Your task to perform on an android device: Clear the shopping cart on costco.com. Image 0: 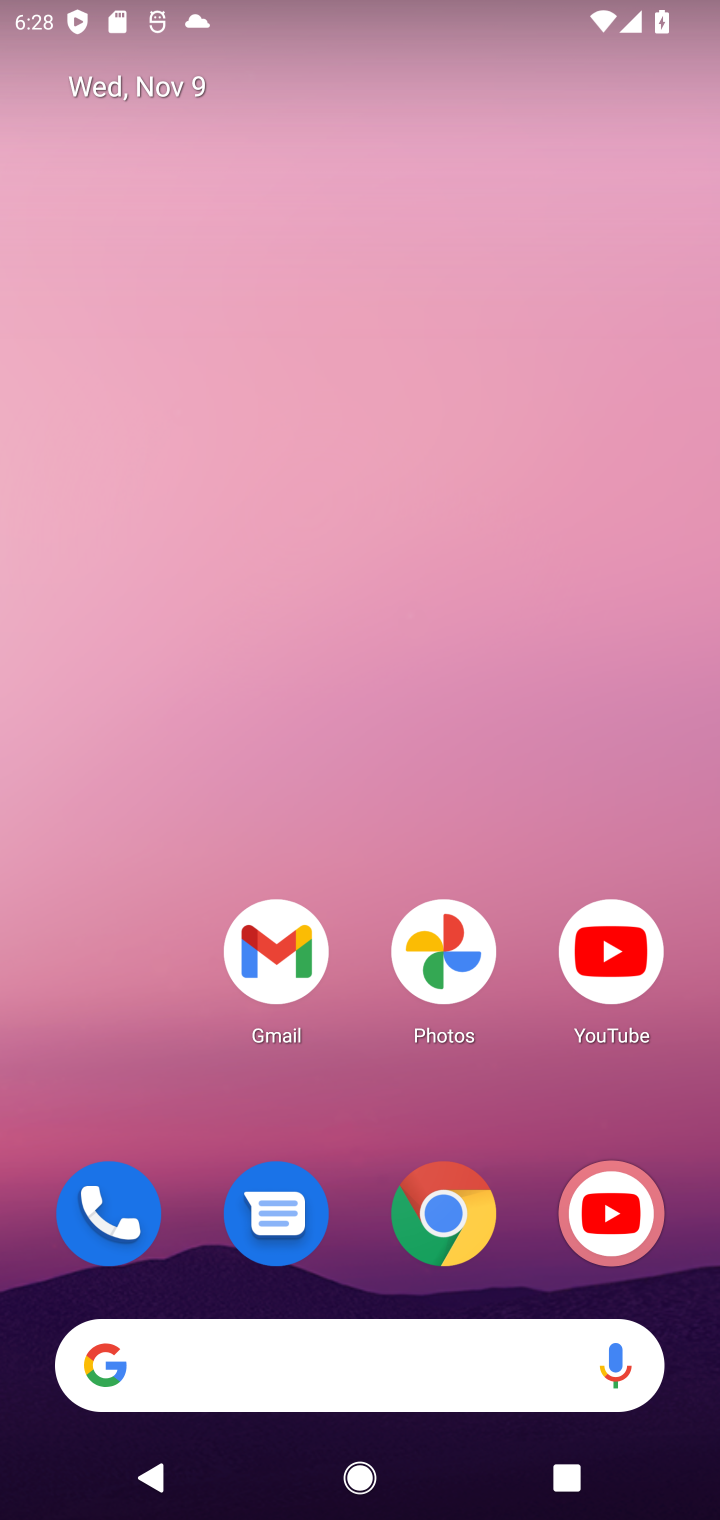
Step 0: press home button
Your task to perform on an android device: Clear the shopping cart on costco.com. Image 1: 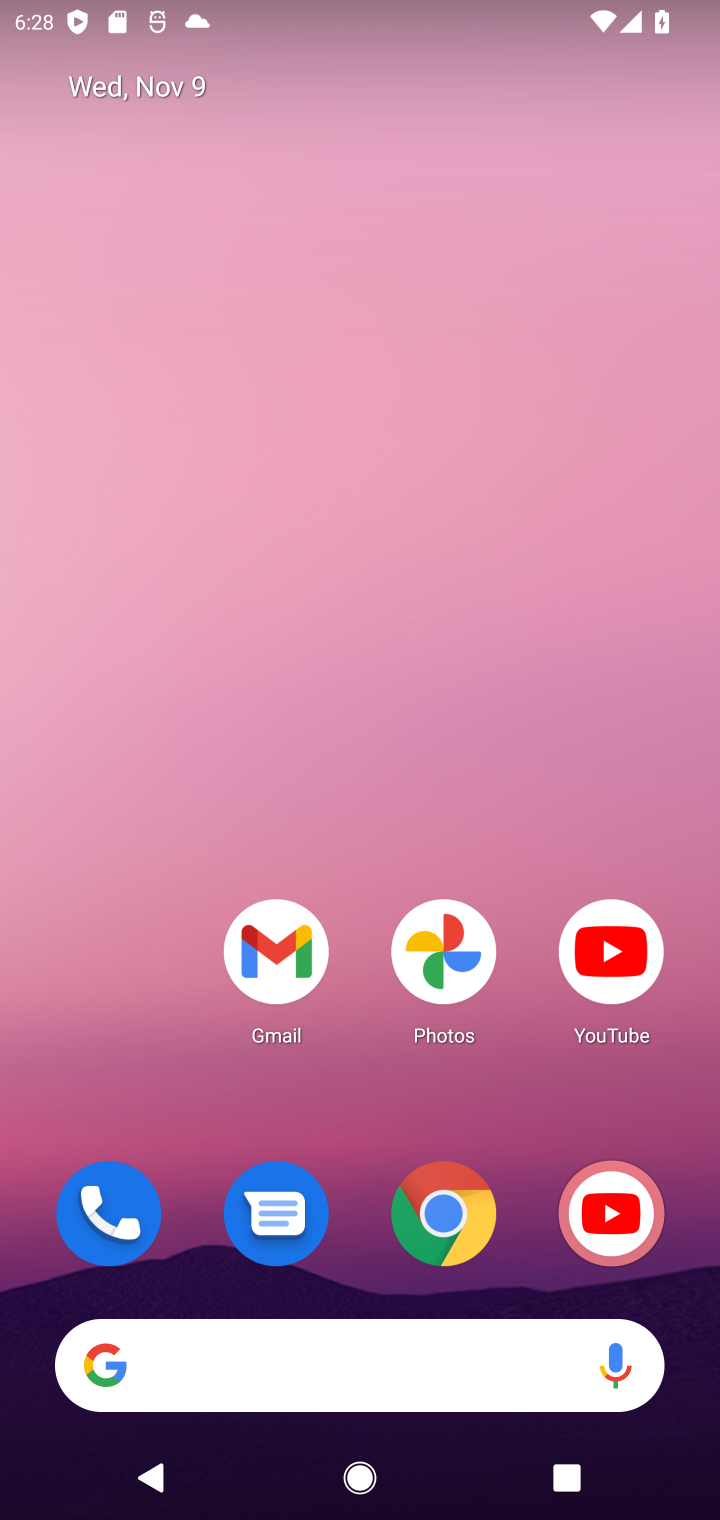
Step 1: press home button
Your task to perform on an android device: Clear the shopping cart on costco.com. Image 2: 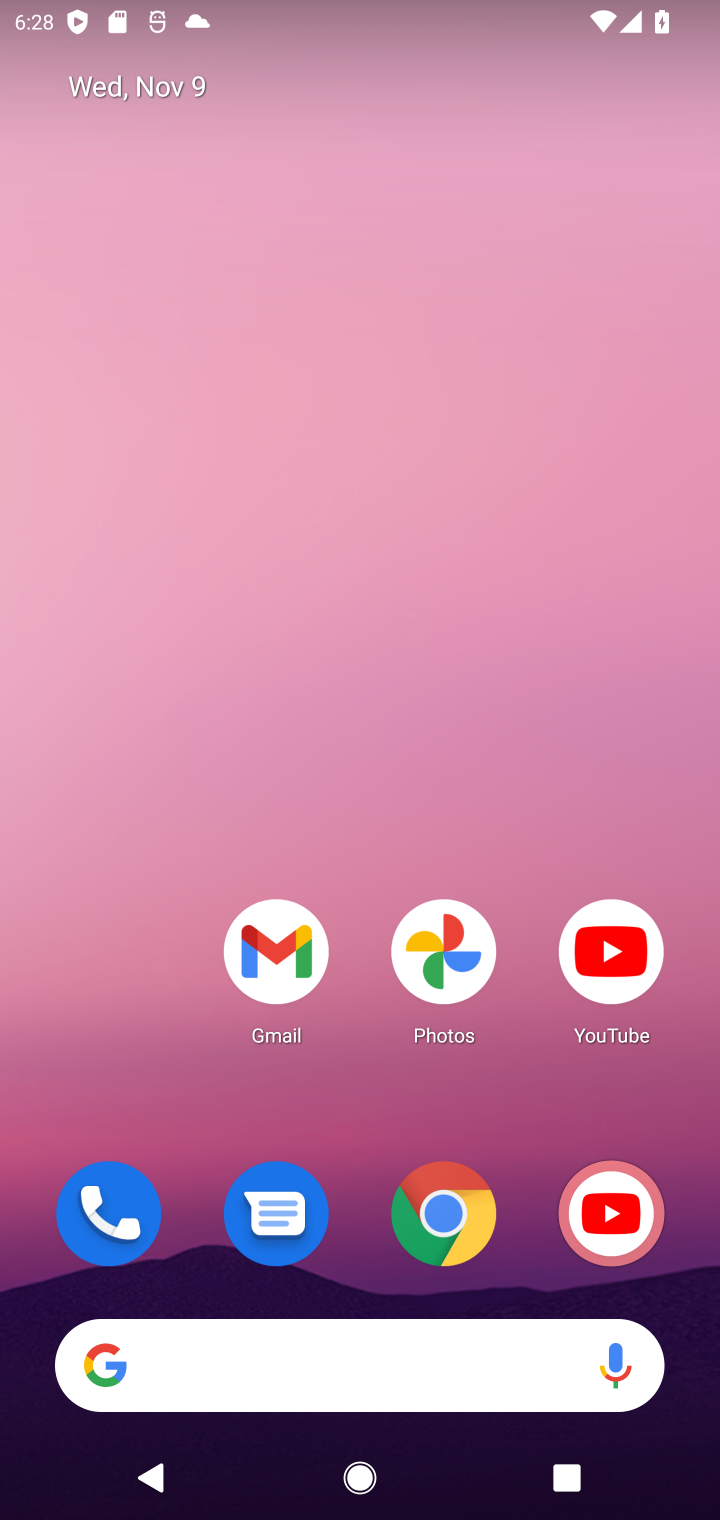
Step 2: click (421, 1241)
Your task to perform on an android device: Clear the shopping cart on costco.com. Image 3: 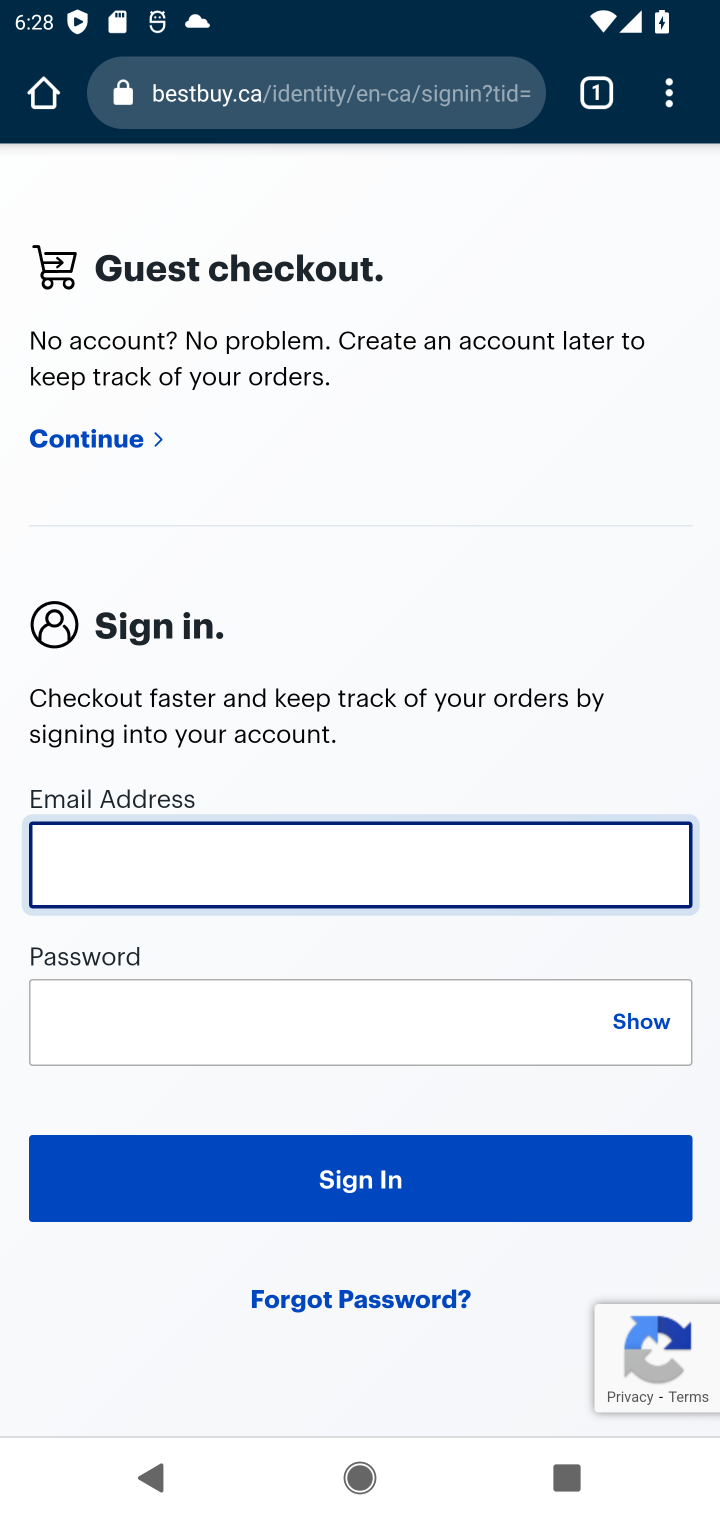
Step 3: click (257, 77)
Your task to perform on an android device: Clear the shopping cart on costco.com. Image 4: 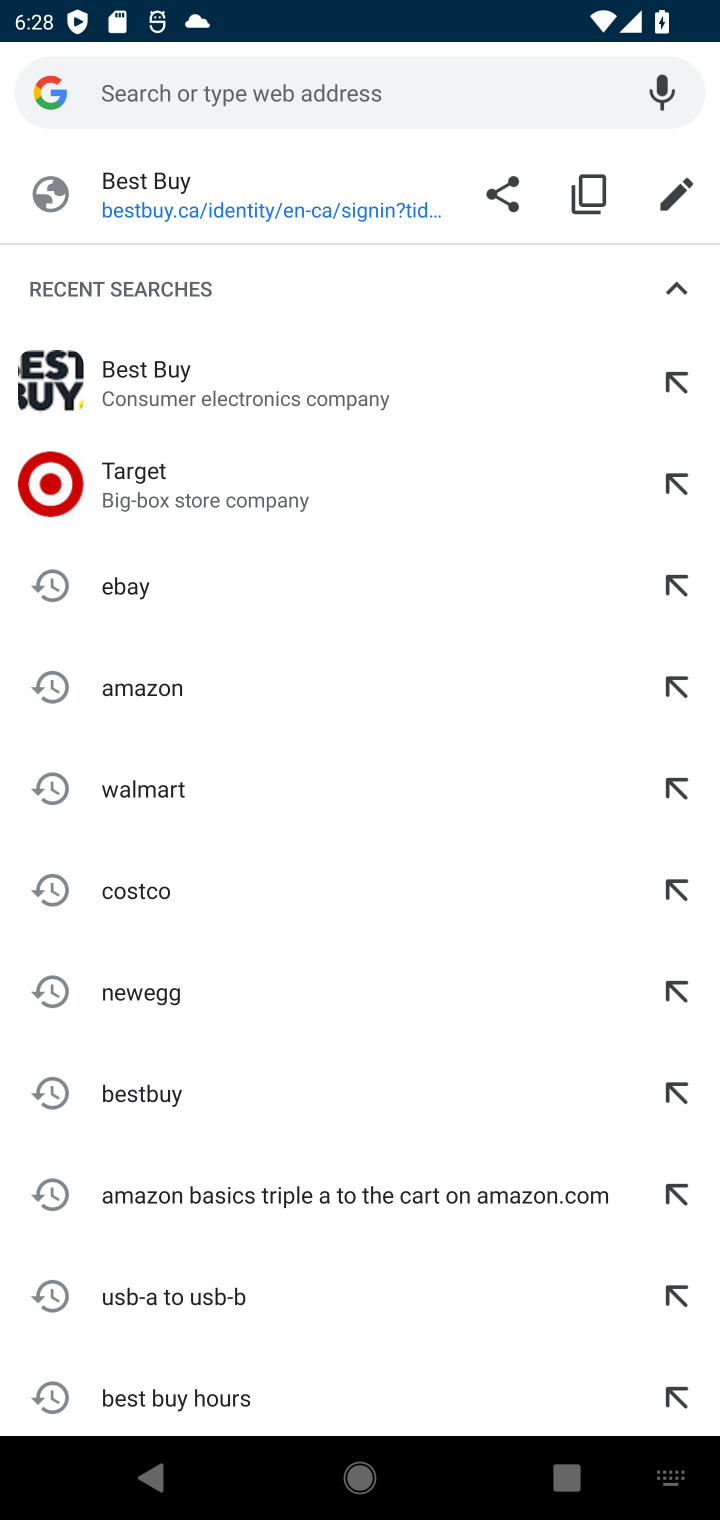
Step 4: type "costco"
Your task to perform on an android device: Clear the shopping cart on costco.com. Image 5: 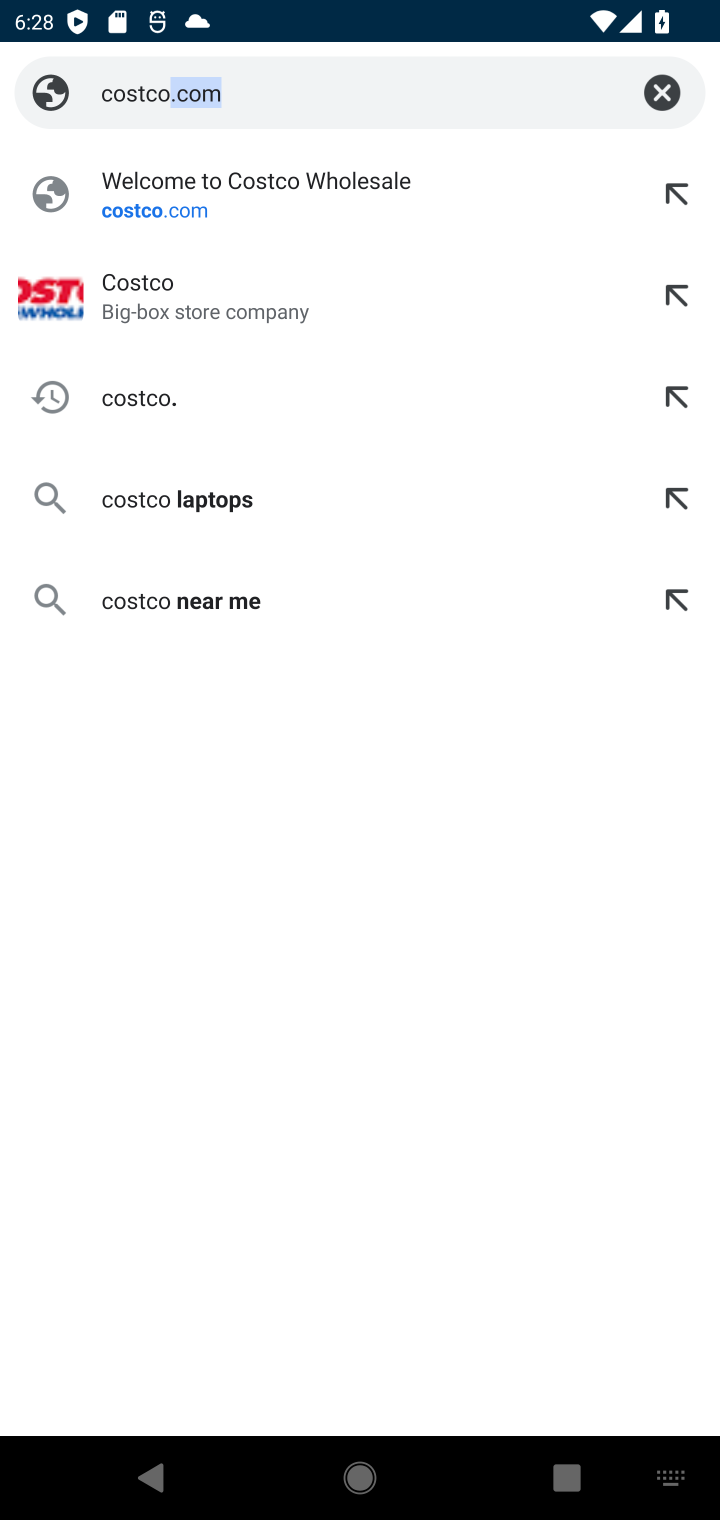
Step 5: click (125, 289)
Your task to perform on an android device: Clear the shopping cart on costco.com. Image 6: 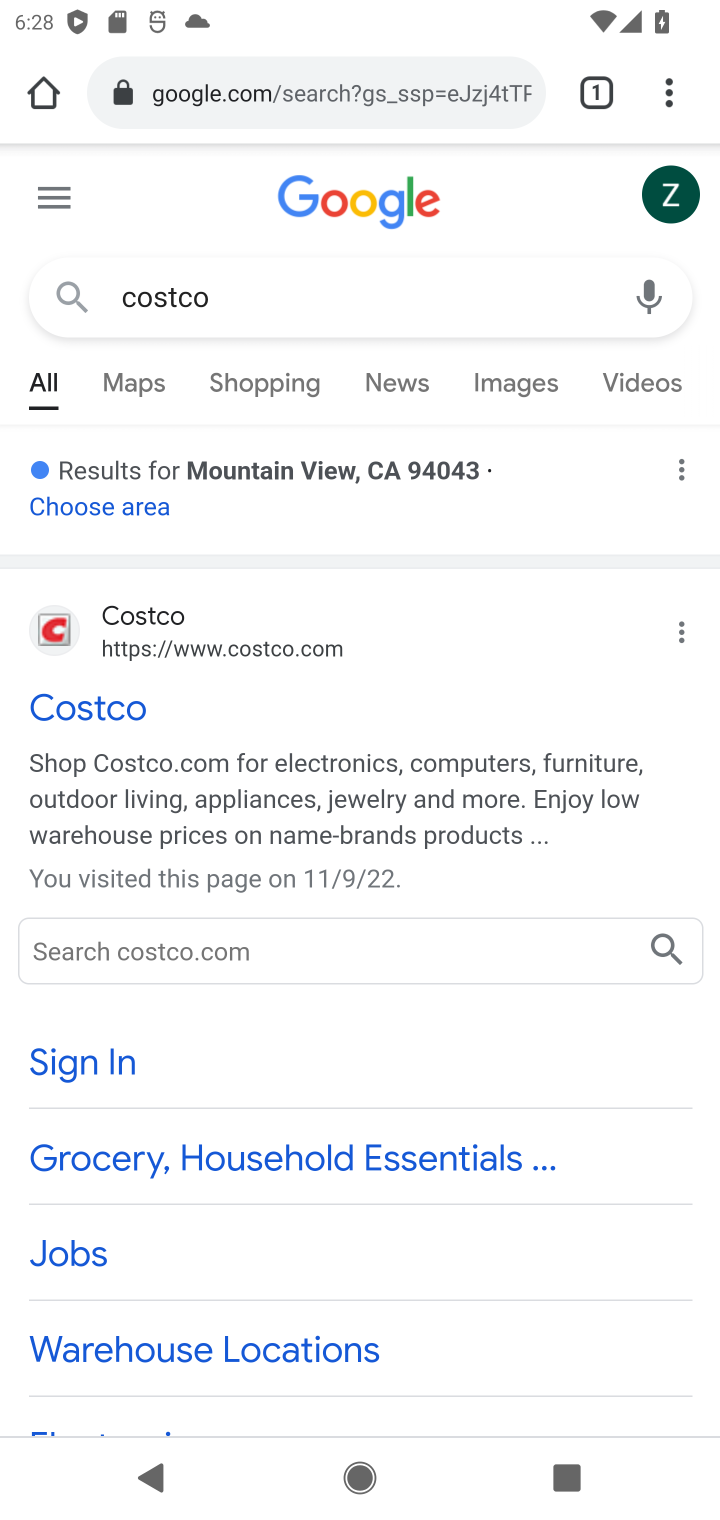
Step 6: click (140, 715)
Your task to perform on an android device: Clear the shopping cart on costco.com. Image 7: 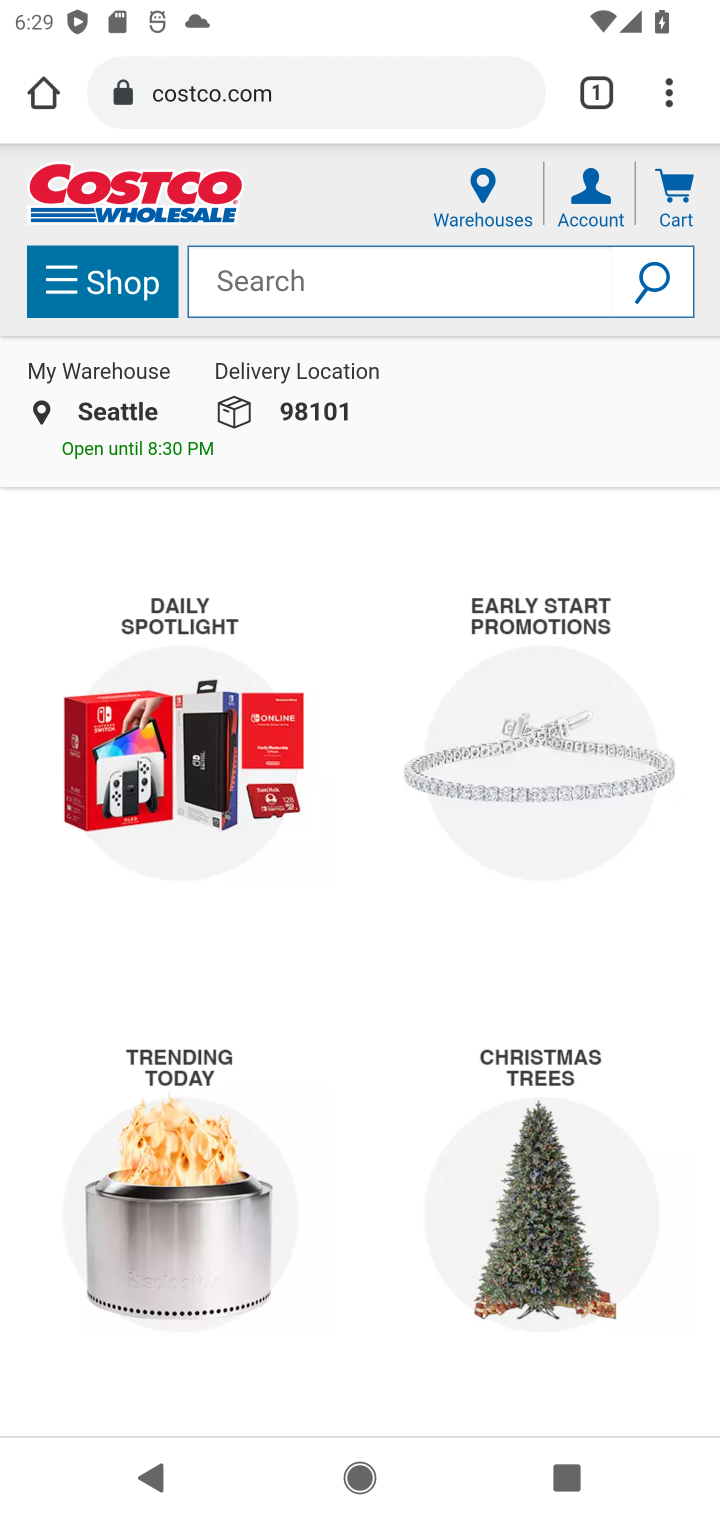
Step 7: click (273, 279)
Your task to perform on an android device: Clear the shopping cart on costco.com. Image 8: 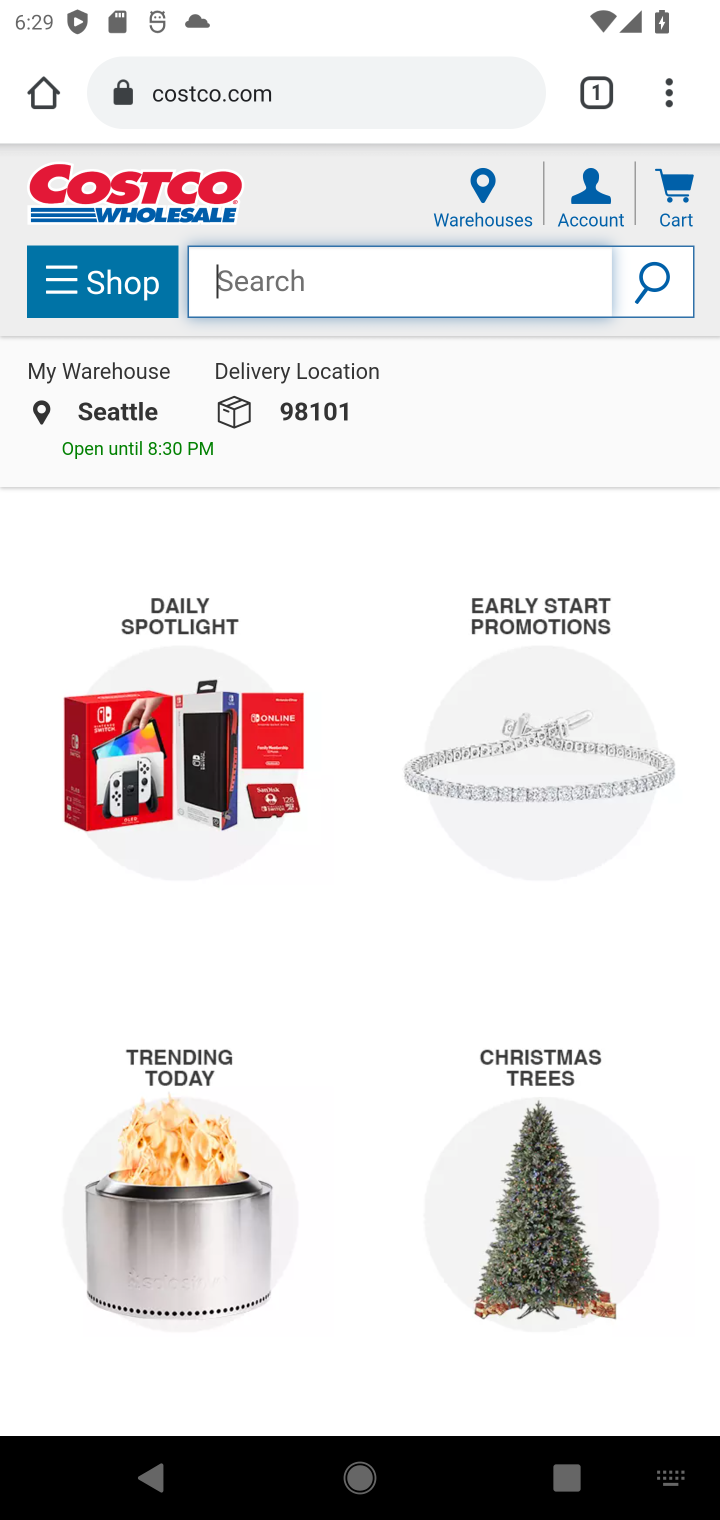
Step 8: click (654, 192)
Your task to perform on an android device: Clear the shopping cart on costco.com. Image 9: 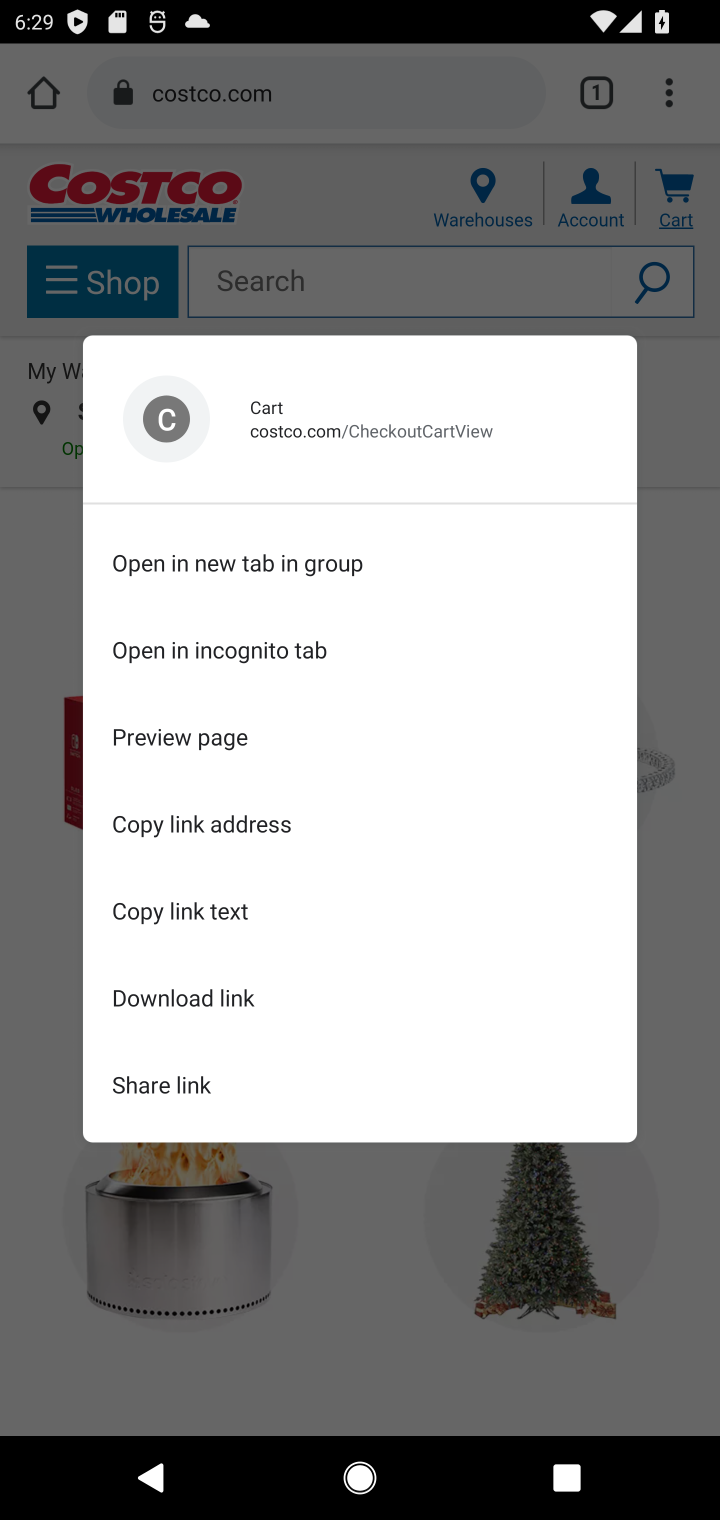
Step 9: click (694, 402)
Your task to perform on an android device: Clear the shopping cart on costco.com. Image 10: 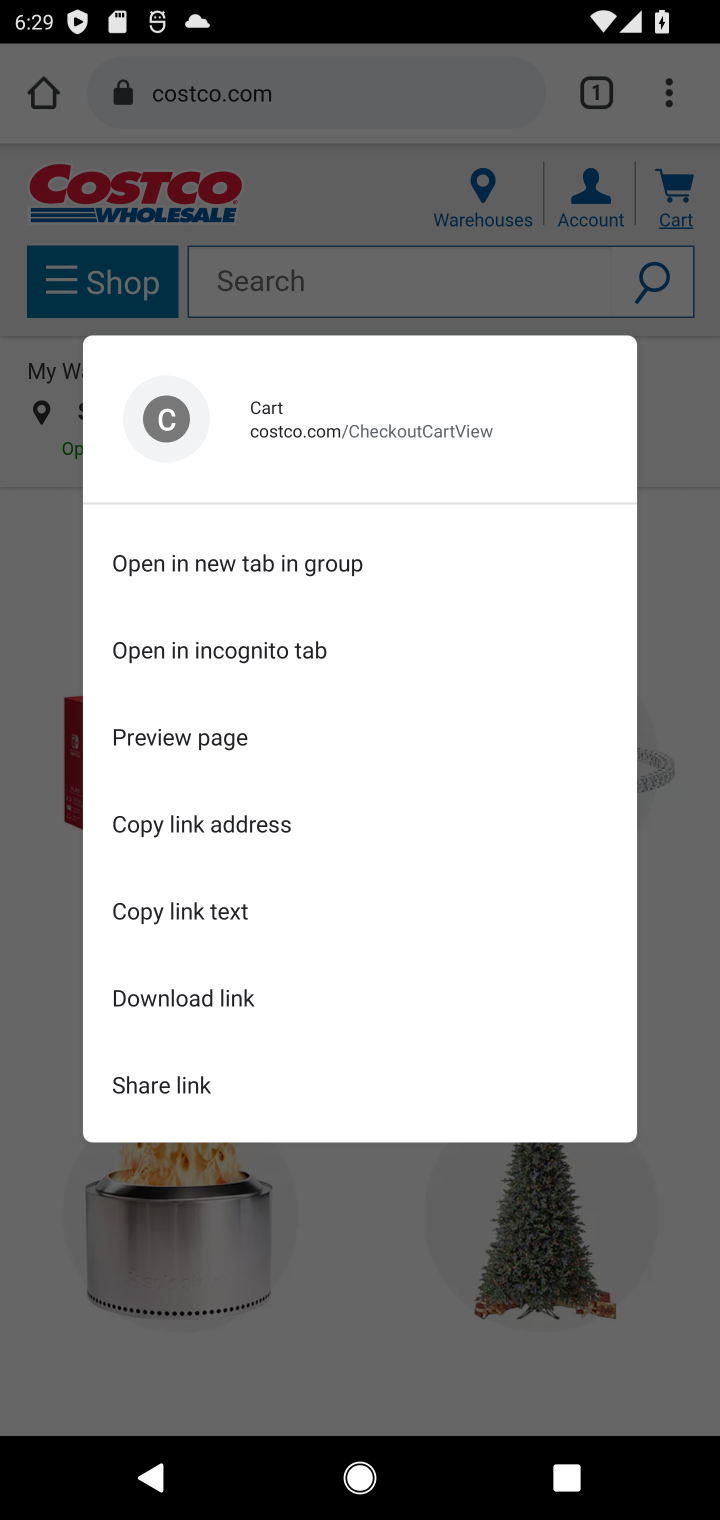
Step 10: click (674, 191)
Your task to perform on an android device: Clear the shopping cart on costco.com. Image 11: 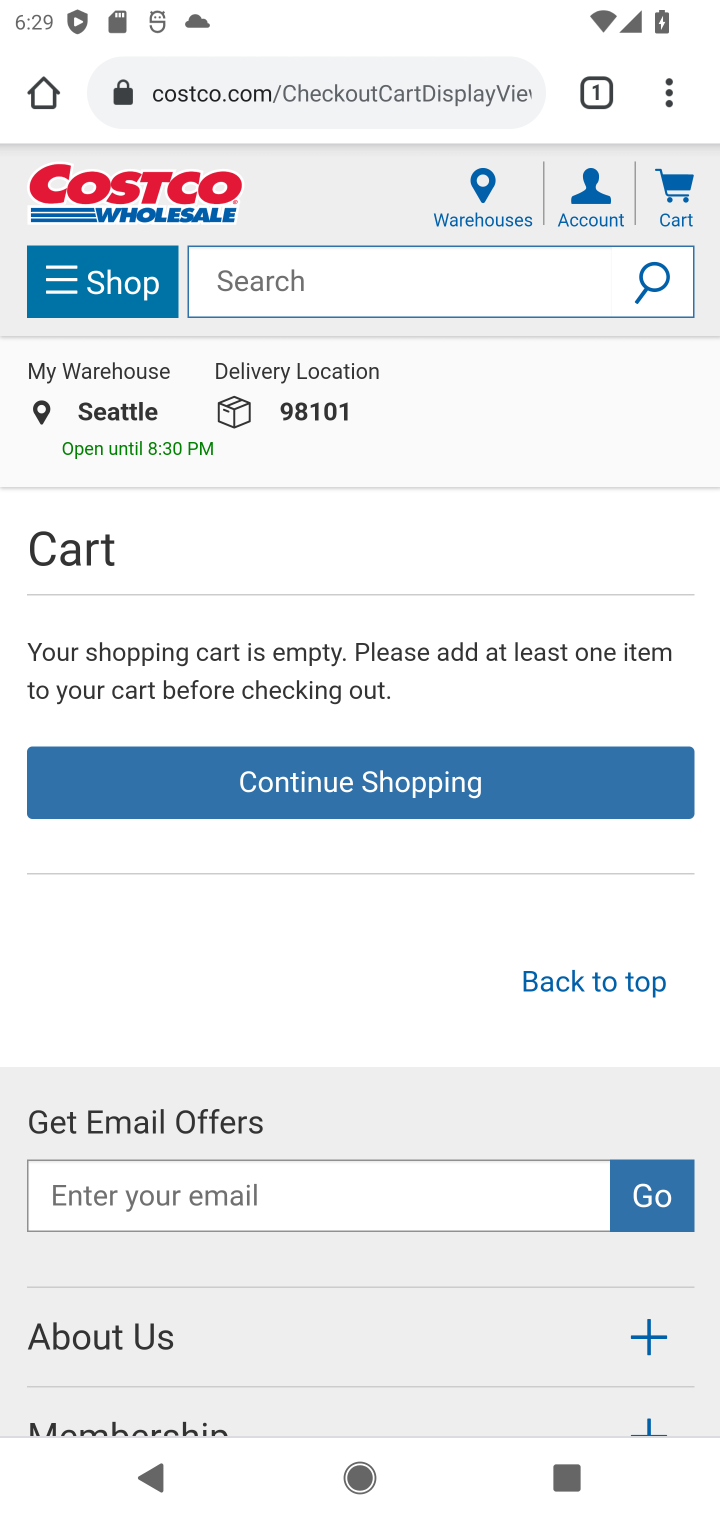
Step 11: task complete